Your task to perform on an android device: Go to Wikipedia Image 0: 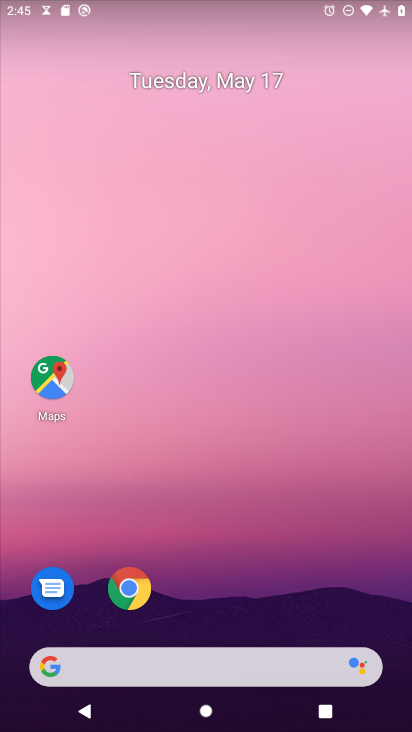
Step 0: click (141, 594)
Your task to perform on an android device: Go to Wikipedia Image 1: 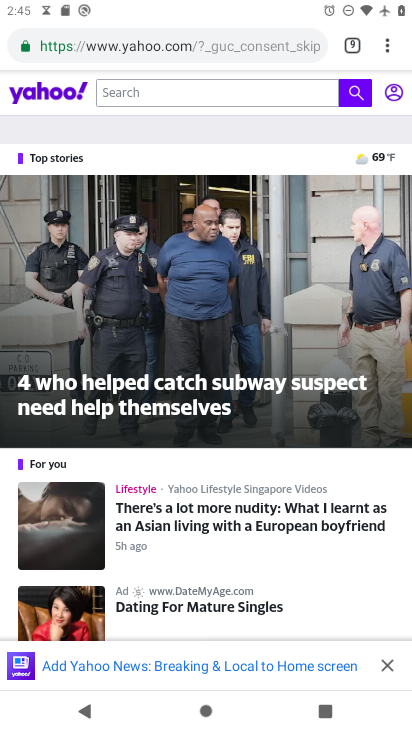
Step 1: click (355, 45)
Your task to perform on an android device: Go to Wikipedia Image 2: 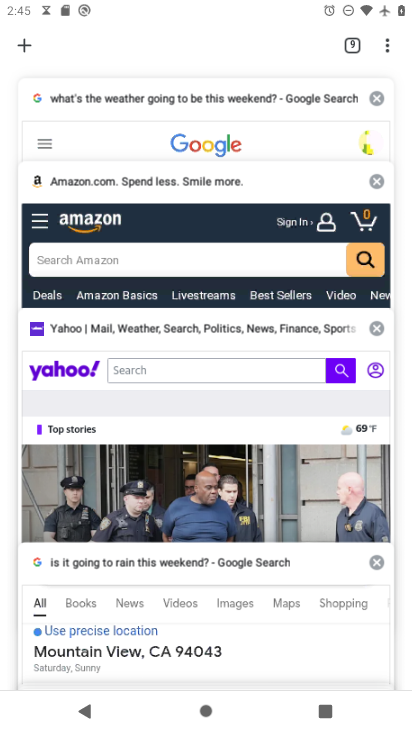
Step 2: drag from (234, 230) to (234, 575)
Your task to perform on an android device: Go to Wikipedia Image 3: 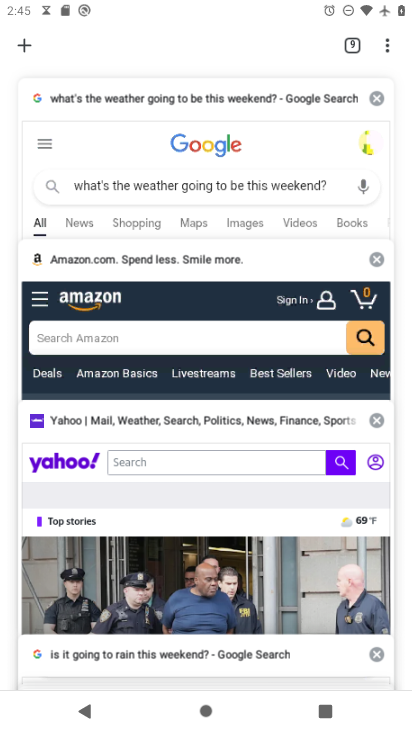
Step 3: drag from (176, 126) to (155, 532)
Your task to perform on an android device: Go to Wikipedia Image 4: 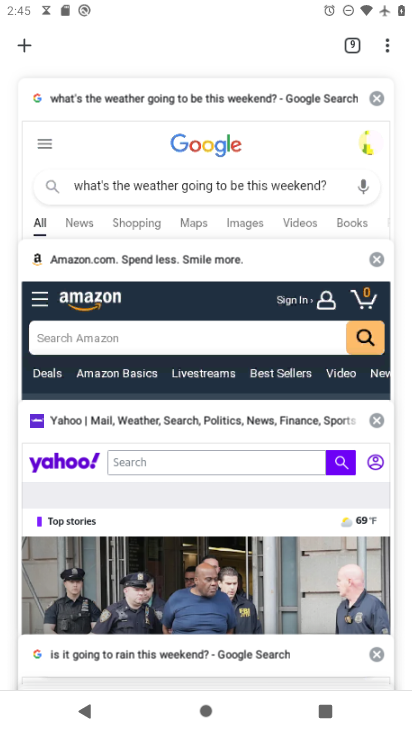
Step 4: click (158, 547)
Your task to perform on an android device: Go to Wikipedia Image 5: 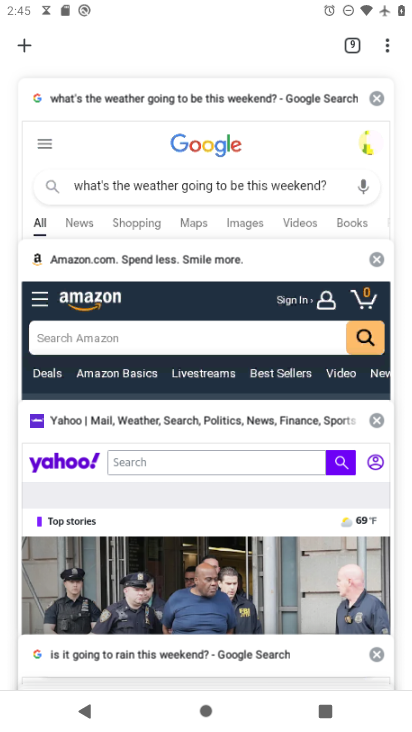
Step 5: drag from (191, 236) to (144, 514)
Your task to perform on an android device: Go to Wikipedia Image 6: 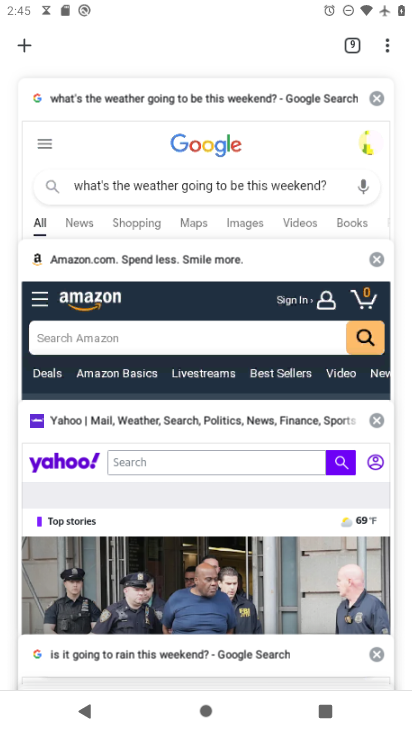
Step 6: drag from (210, 108) to (199, 478)
Your task to perform on an android device: Go to Wikipedia Image 7: 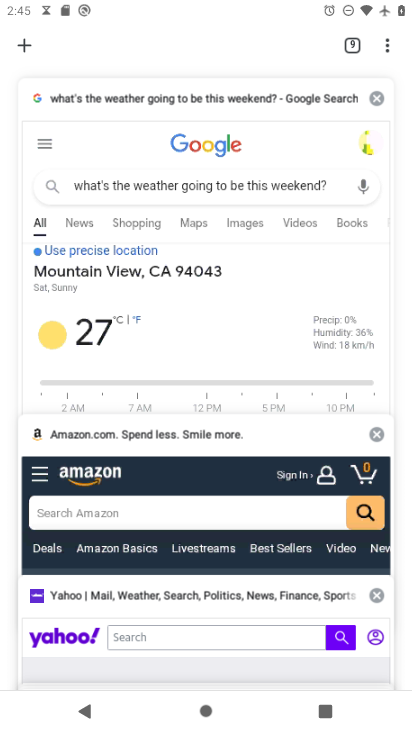
Step 7: drag from (186, 101) to (148, 465)
Your task to perform on an android device: Go to Wikipedia Image 8: 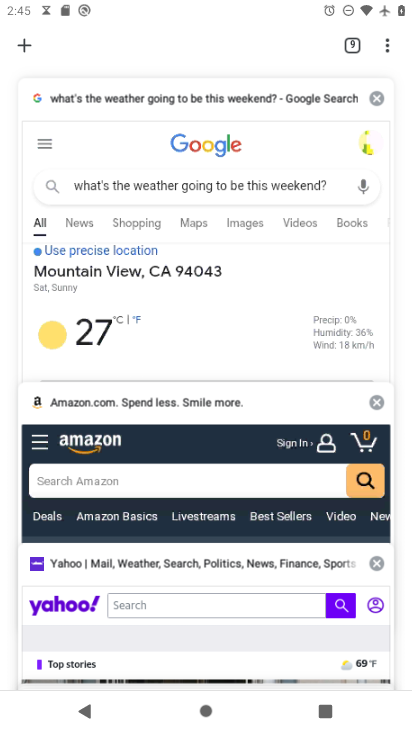
Step 8: drag from (153, 473) to (185, 98)
Your task to perform on an android device: Go to Wikipedia Image 9: 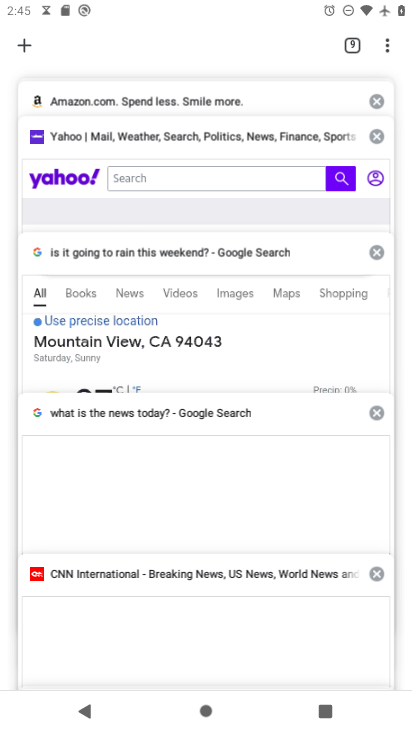
Step 9: drag from (161, 563) to (191, 196)
Your task to perform on an android device: Go to Wikipedia Image 10: 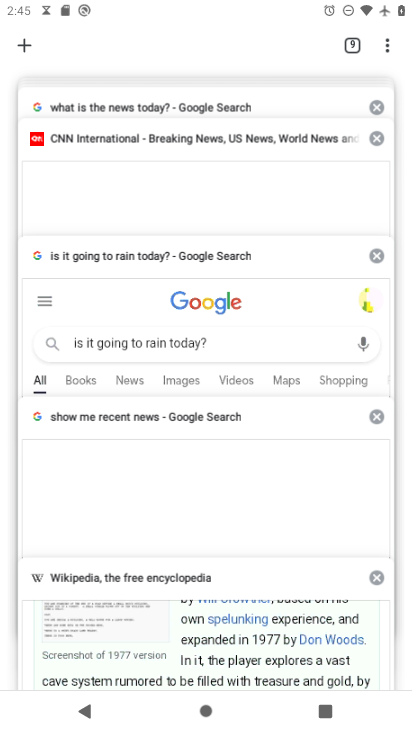
Step 10: drag from (148, 557) to (150, 258)
Your task to perform on an android device: Go to Wikipedia Image 11: 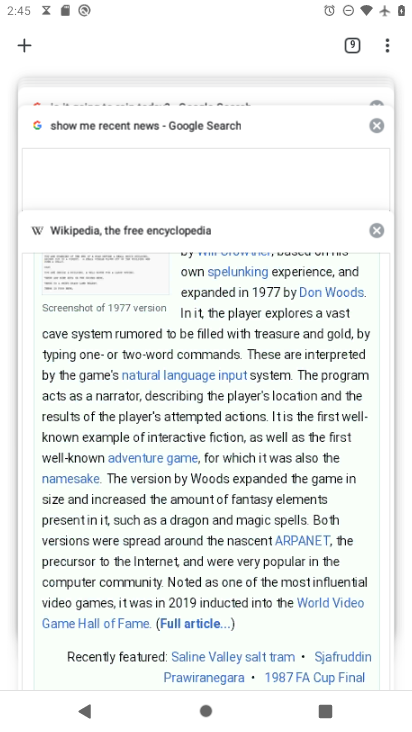
Step 11: click (175, 524)
Your task to perform on an android device: Go to Wikipedia Image 12: 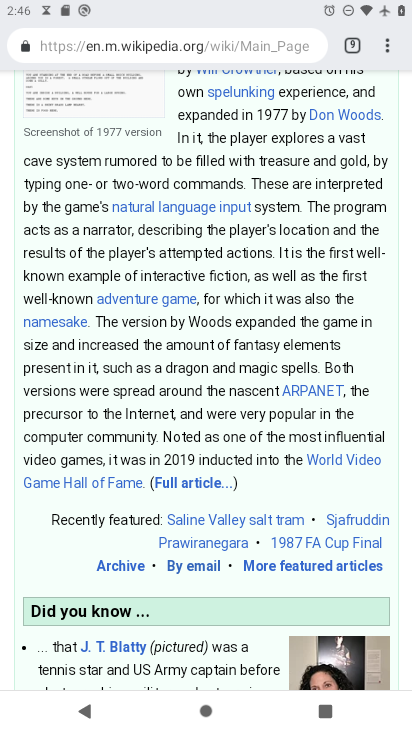
Step 12: task complete